Your task to perform on an android device: Open the web browser Image 0: 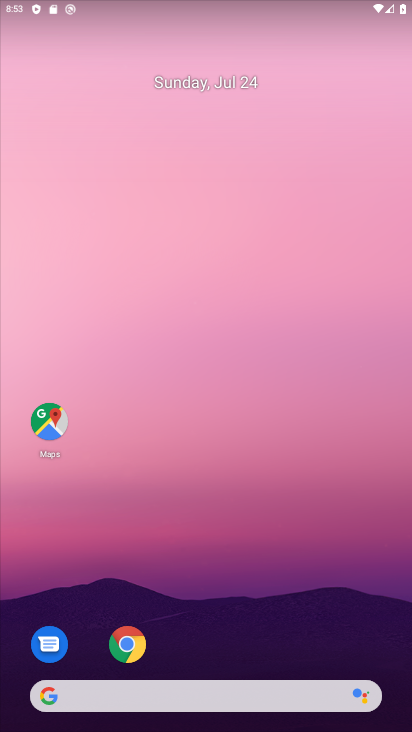
Step 0: drag from (302, 617) to (252, 125)
Your task to perform on an android device: Open the web browser Image 1: 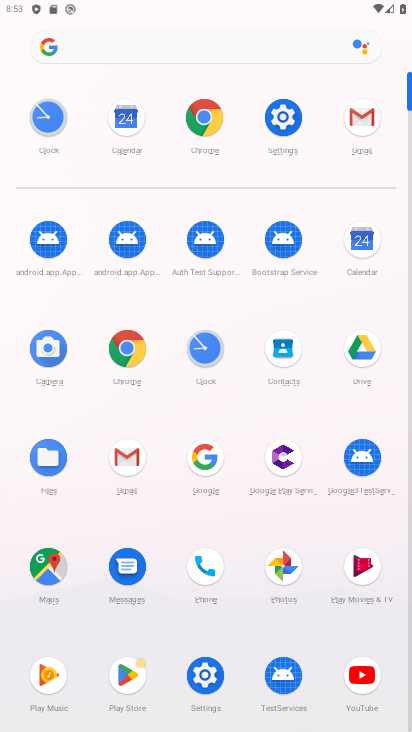
Step 1: click (131, 344)
Your task to perform on an android device: Open the web browser Image 2: 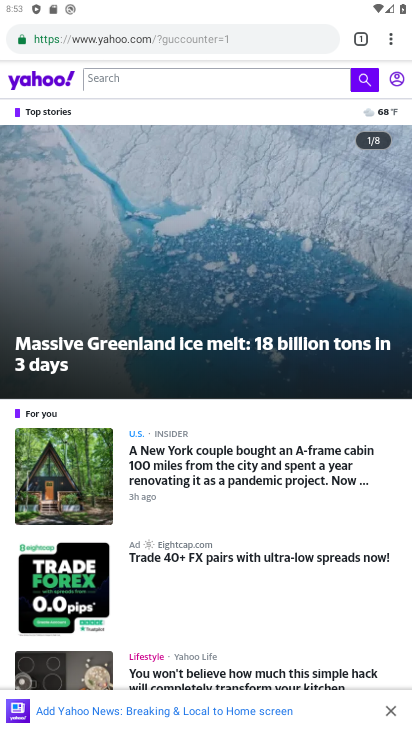
Step 2: click (156, 28)
Your task to perform on an android device: Open the web browser Image 3: 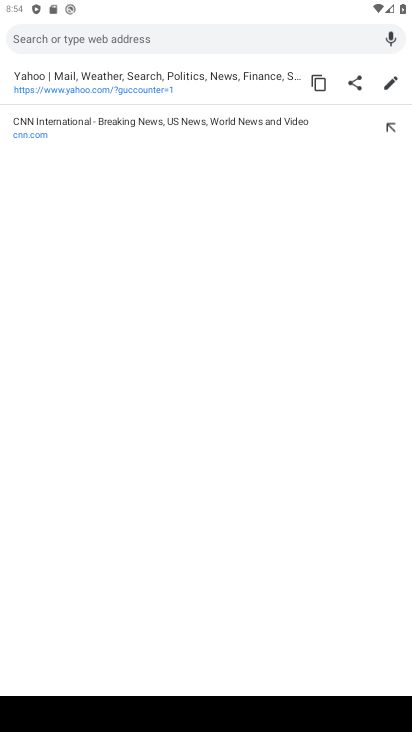
Step 3: click (386, 727)
Your task to perform on an android device: Open the web browser Image 4: 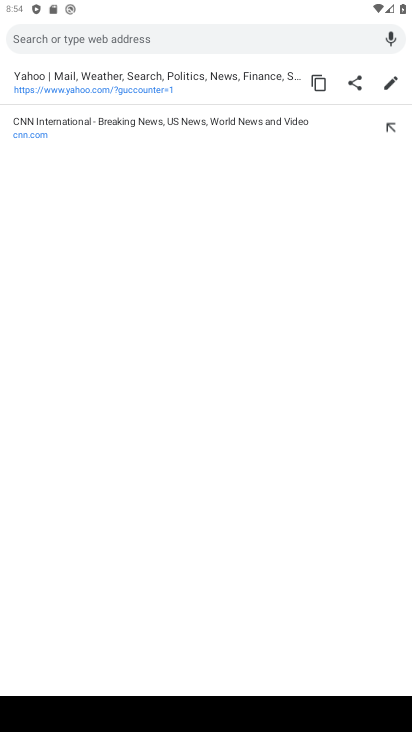
Step 4: type " web browser"
Your task to perform on an android device: Open the web browser Image 5: 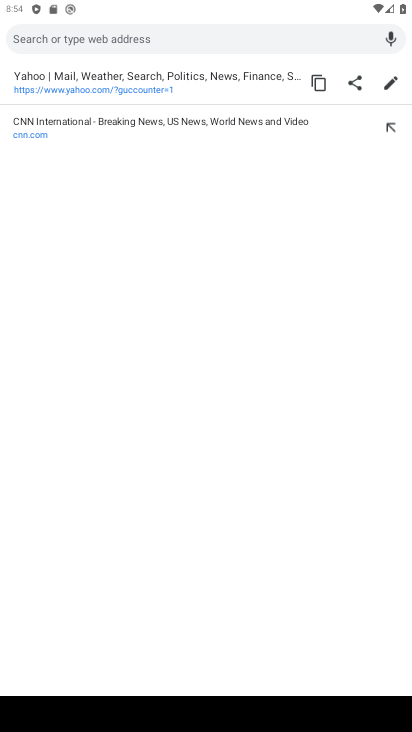
Step 5: drag from (411, 722) to (349, 275)
Your task to perform on an android device: Open the web browser Image 6: 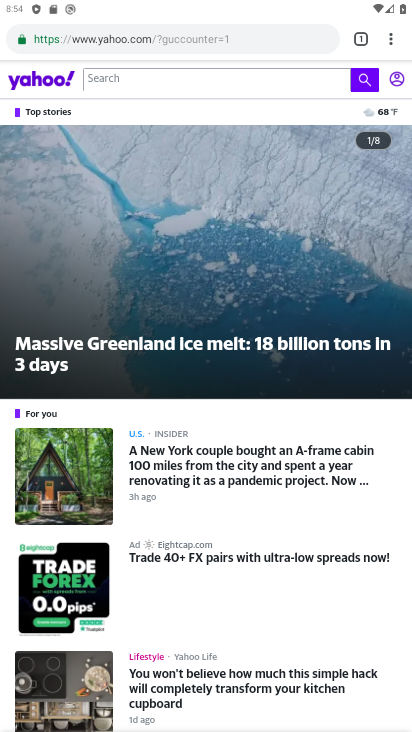
Step 6: click (148, 31)
Your task to perform on an android device: Open the web browser Image 7: 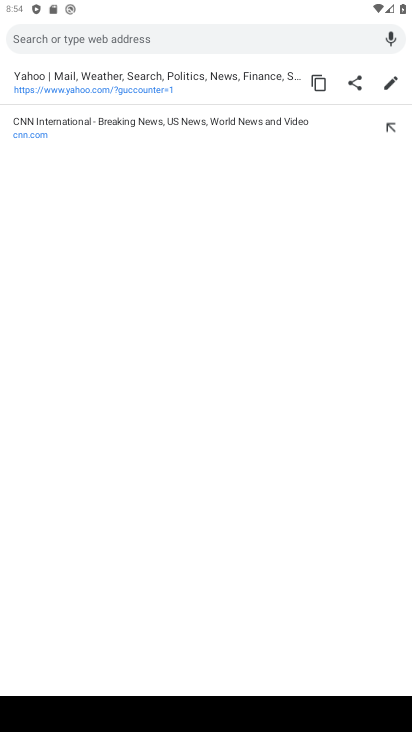
Step 7: type " web browser"
Your task to perform on an android device: Open the web browser Image 8: 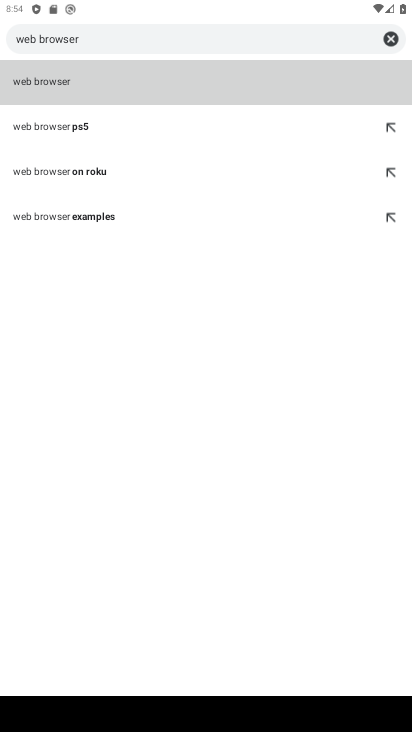
Step 8: click (52, 77)
Your task to perform on an android device: Open the web browser Image 9: 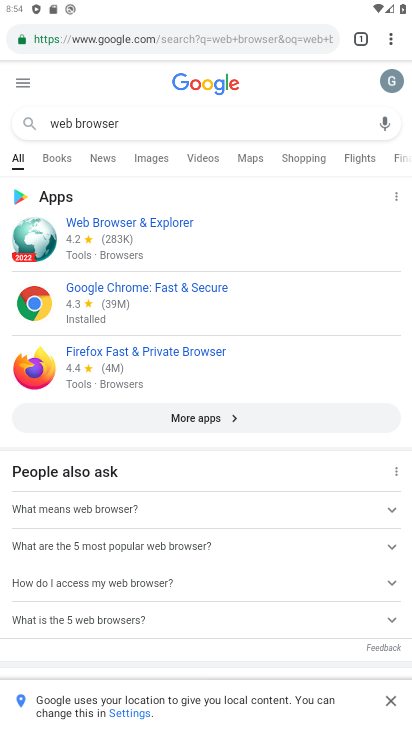
Step 9: task complete